Your task to perform on an android device: turn vacation reply on in the gmail app Image 0: 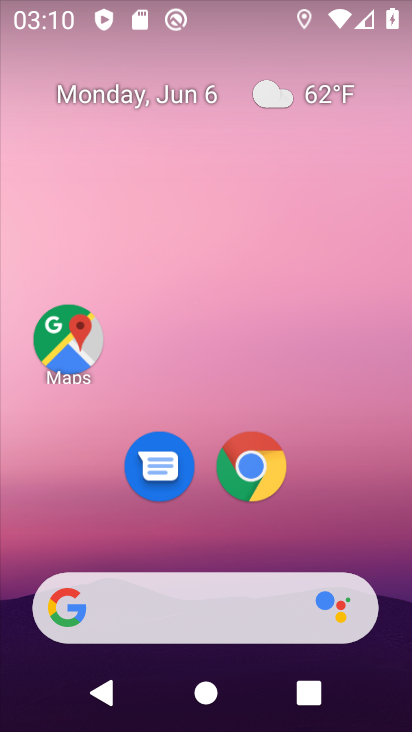
Step 0: drag from (373, 508) to (365, 81)
Your task to perform on an android device: turn vacation reply on in the gmail app Image 1: 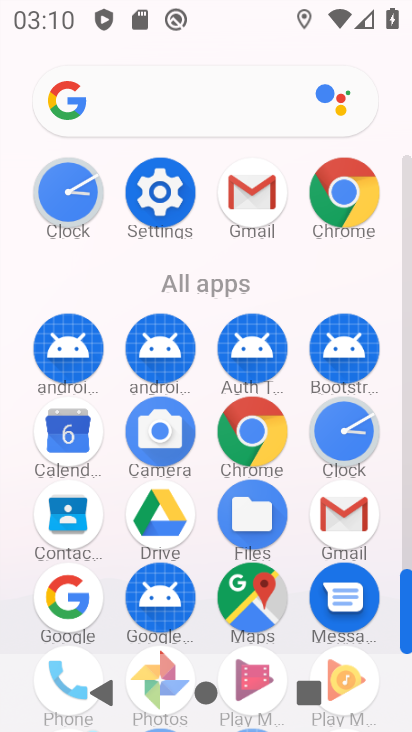
Step 1: click (266, 187)
Your task to perform on an android device: turn vacation reply on in the gmail app Image 2: 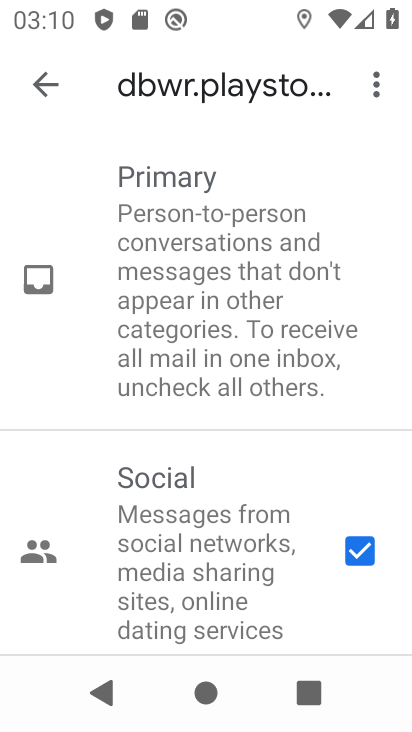
Step 2: click (52, 84)
Your task to perform on an android device: turn vacation reply on in the gmail app Image 3: 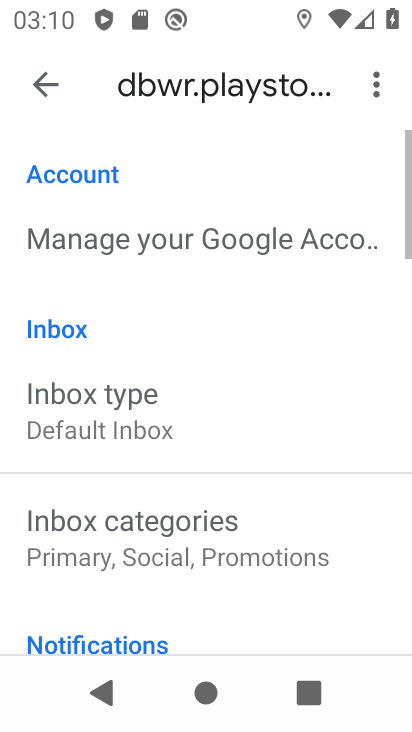
Step 3: click (52, 79)
Your task to perform on an android device: turn vacation reply on in the gmail app Image 4: 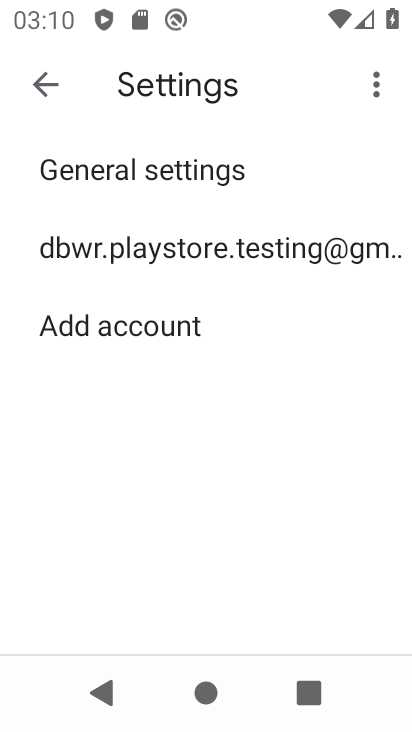
Step 4: click (139, 252)
Your task to perform on an android device: turn vacation reply on in the gmail app Image 5: 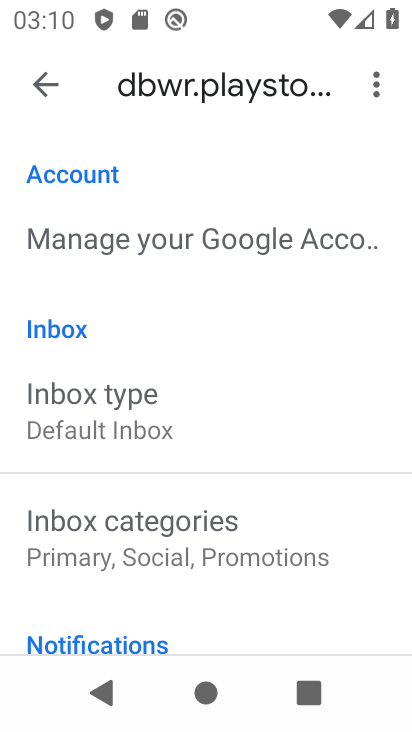
Step 5: drag from (208, 316) to (236, 82)
Your task to perform on an android device: turn vacation reply on in the gmail app Image 6: 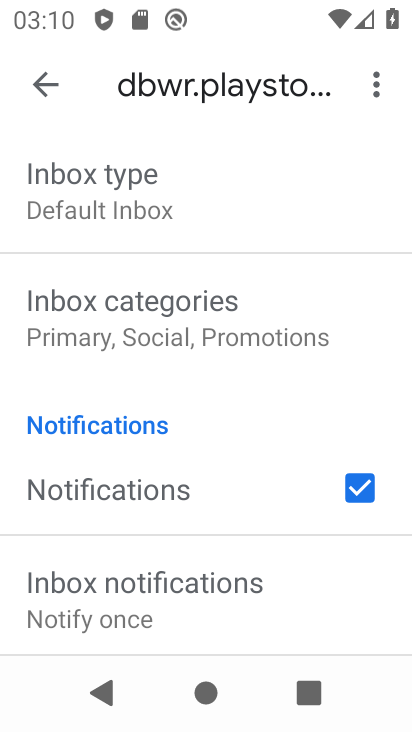
Step 6: drag from (220, 583) to (307, 163)
Your task to perform on an android device: turn vacation reply on in the gmail app Image 7: 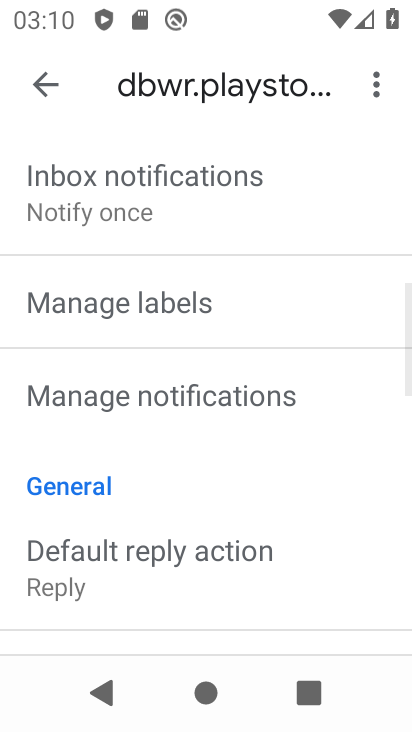
Step 7: drag from (197, 627) to (259, 220)
Your task to perform on an android device: turn vacation reply on in the gmail app Image 8: 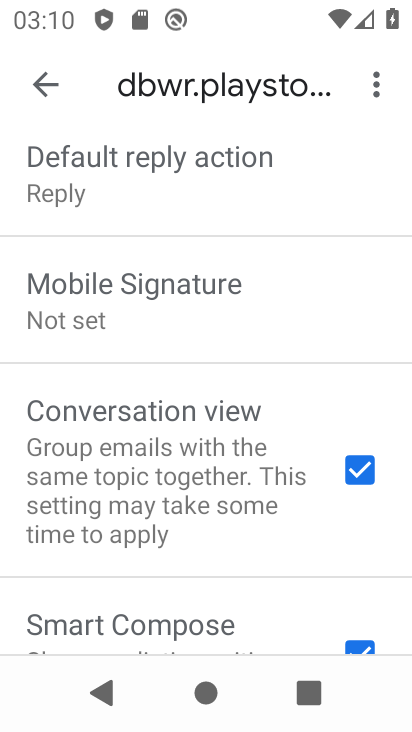
Step 8: drag from (191, 601) to (253, 190)
Your task to perform on an android device: turn vacation reply on in the gmail app Image 9: 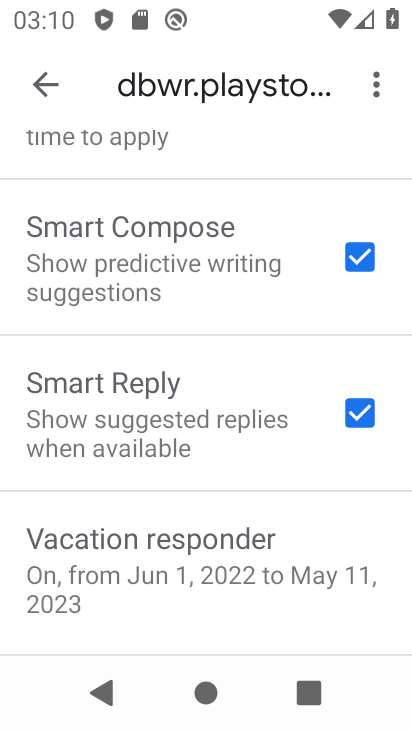
Step 9: click (219, 568)
Your task to perform on an android device: turn vacation reply on in the gmail app Image 10: 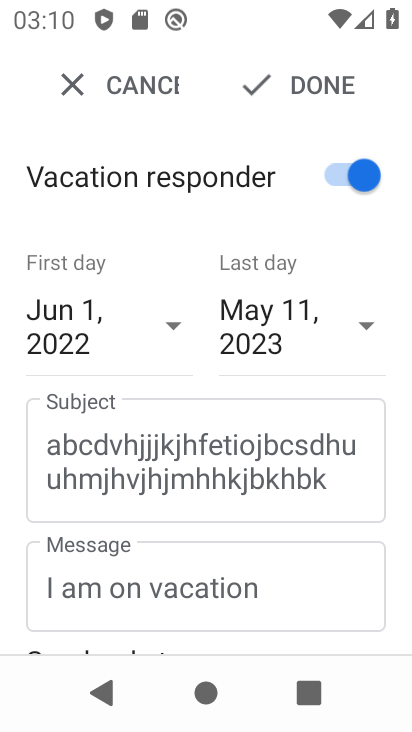
Step 10: task complete